Your task to perform on an android device: turn on the 24-hour format for clock Image 0: 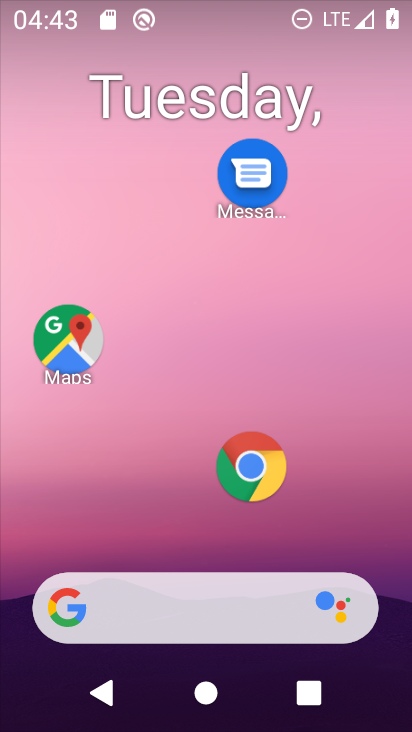
Step 0: drag from (150, 466) to (208, 32)
Your task to perform on an android device: turn on the 24-hour format for clock Image 1: 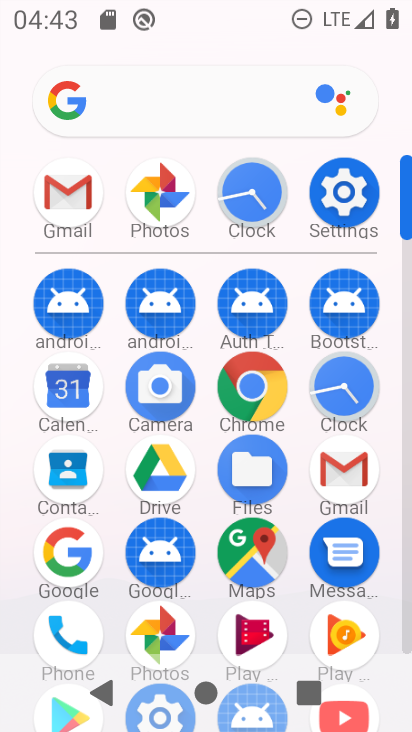
Step 1: click (248, 194)
Your task to perform on an android device: turn on the 24-hour format for clock Image 2: 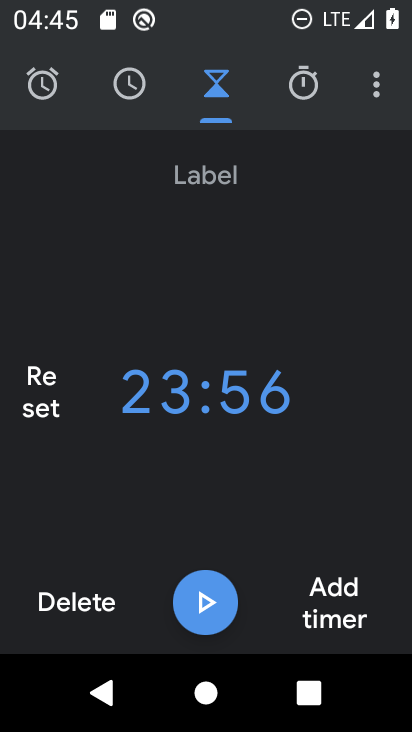
Step 2: click (374, 89)
Your task to perform on an android device: turn on the 24-hour format for clock Image 3: 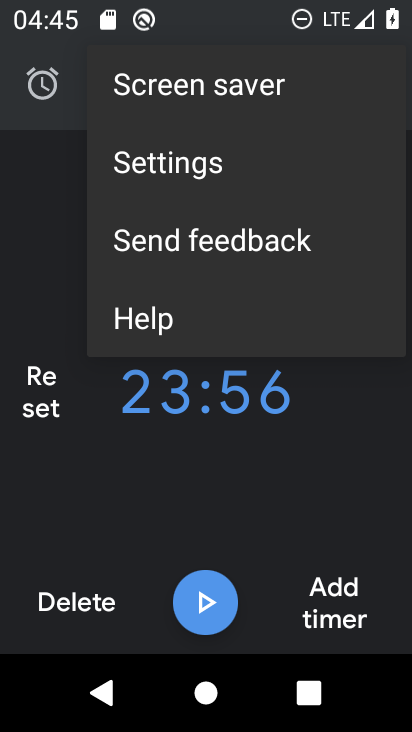
Step 3: click (158, 154)
Your task to perform on an android device: turn on the 24-hour format for clock Image 4: 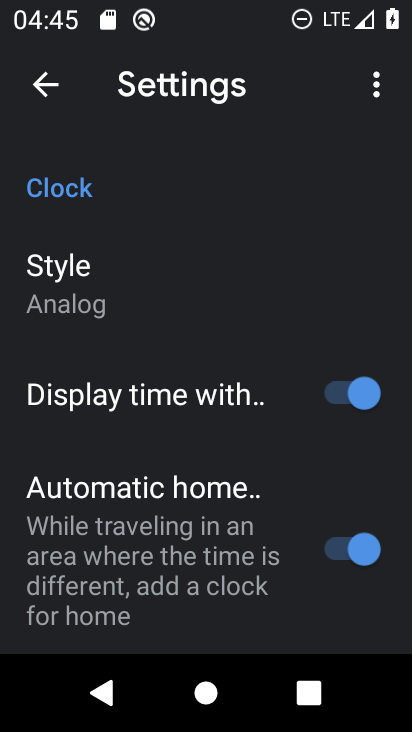
Step 4: drag from (194, 640) to (226, 264)
Your task to perform on an android device: turn on the 24-hour format for clock Image 5: 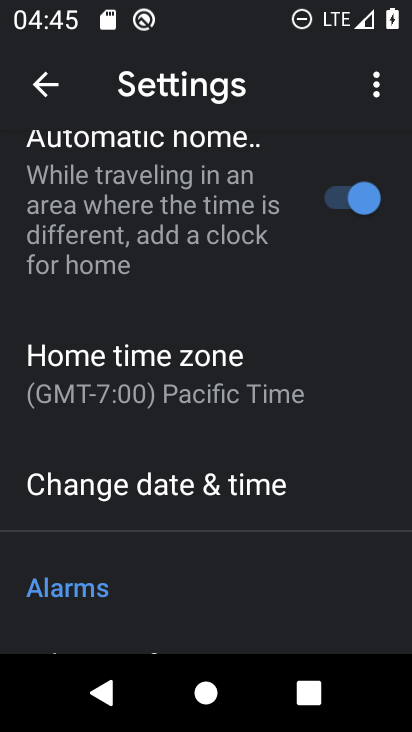
Step 5: click (185, 494)
Your task to perform on an android device: turn on the 24-hour format for clock Image 6: 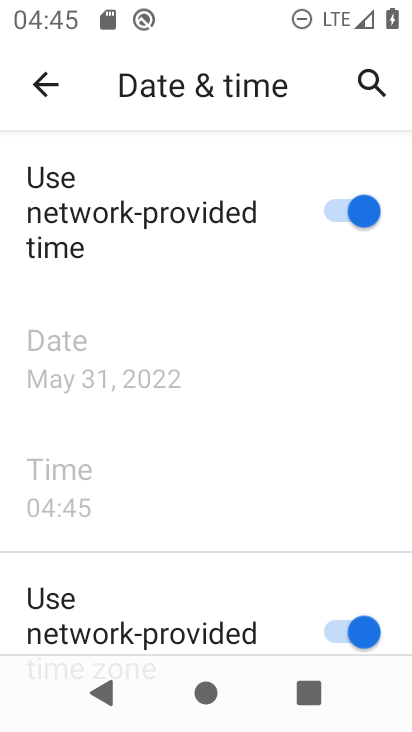
Step 6: task complete